Your task to perform on an android device: Open the Play Movies app and select the watchlist tab. Image 0: 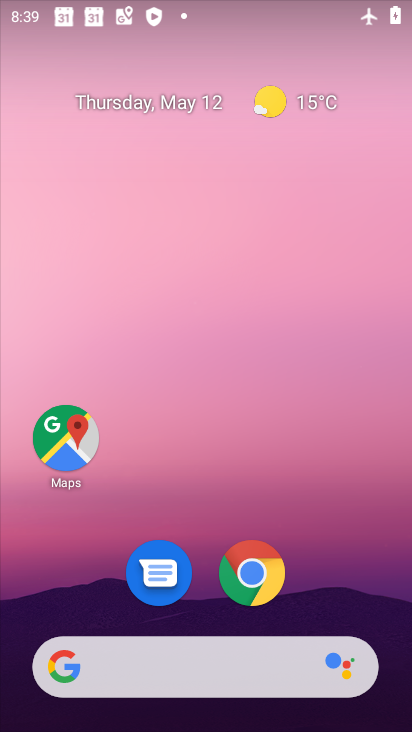
Step 0: drag from (318, 561) to (215, 101)
Your task to perform on an android device: Open the Play Movies app and select the watchlist tab. Image 1: 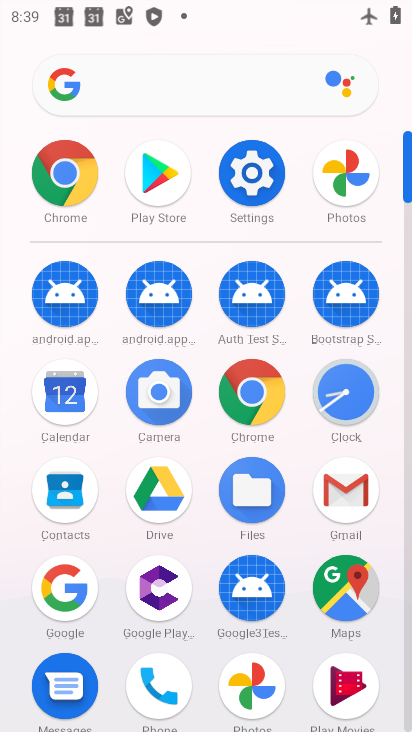
Step 1: click (336, 672)
Your task to perform on an android device: Open the Play Movies app and select the watchlist tab. Image 2: 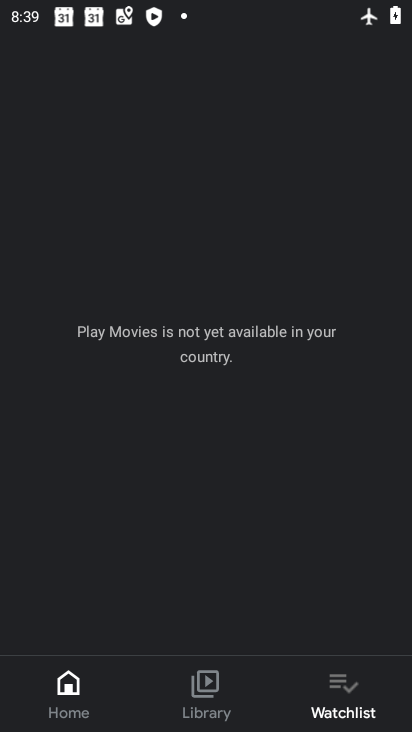
Step 2: click (351, 711)
Your task to perform on an android device: Open the Play Movies app and select the watchlist tab. Image 3: 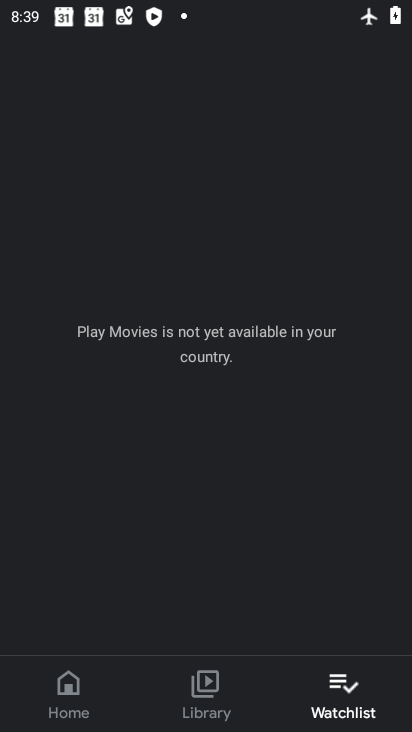
Step 3: task complete